Your task to perform on an android device: move an email to a new category in the gmail app Image 0: 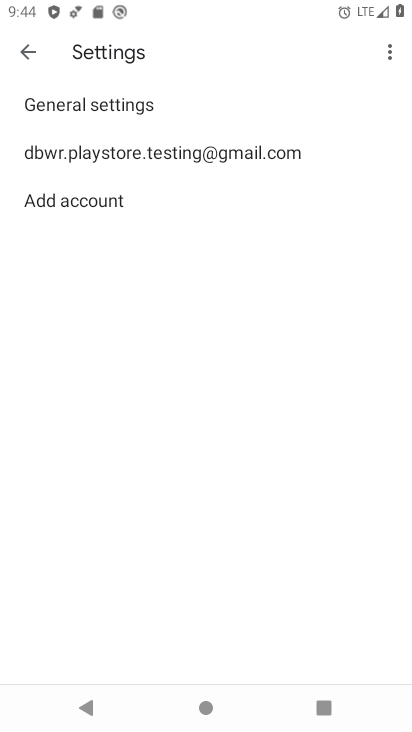
Step 0: click (22, 50)
Your task to perform on an android device: move an email to a new category in the gmail app Image 1: 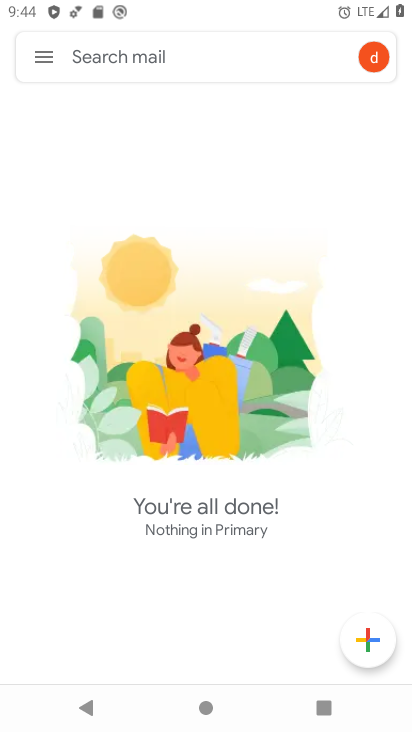
Step 1: click (28, 52)
Your task to perform on an android device: move an email to a new category in the gmail app Image 2: 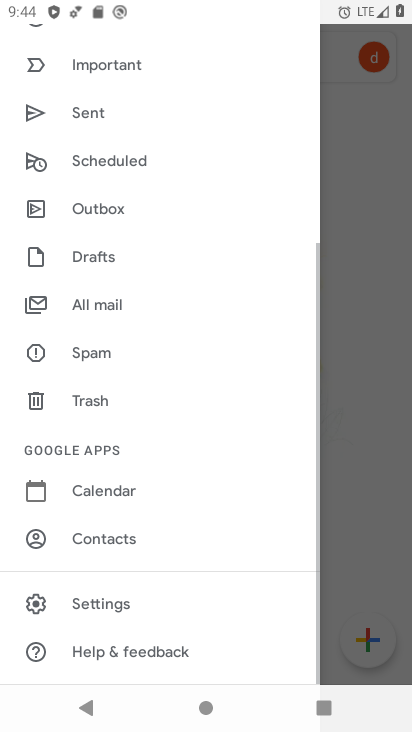
Step 2: drag from (258, 74) to (281, 575)
Your task to perform on an android device: move an email to a new category in the gmail app Image 3: 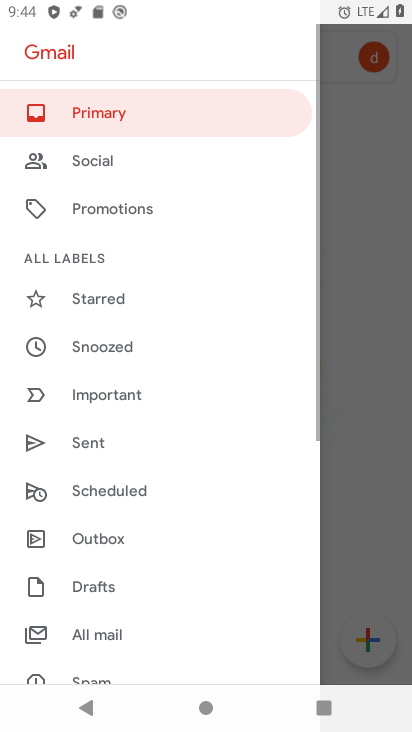
Step 3: click (142, 122)
Your task to perform on an android device: move an email to a new category in the gmail app Image 4: 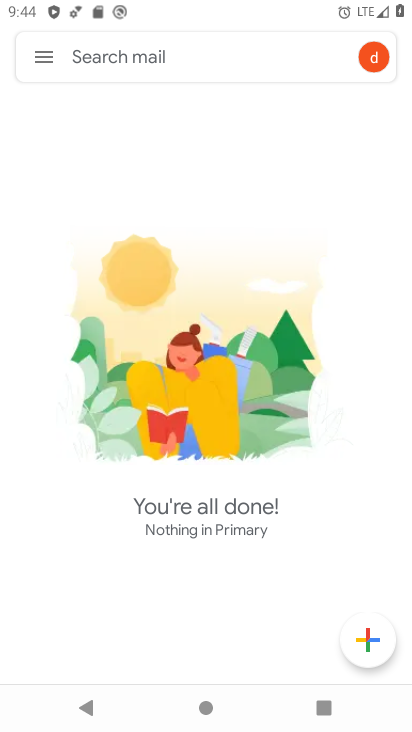
Step 4: click (42, 45)
Your task to perform on an android device: move an email to a new category in the gmail app Image 5: 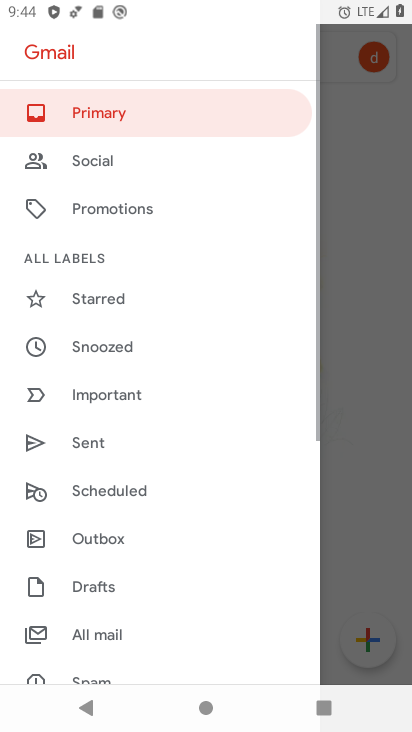
Step 5: click (85, 108)
Your task to perform on an android device: move an email to a new category in the gmail app Image 6: 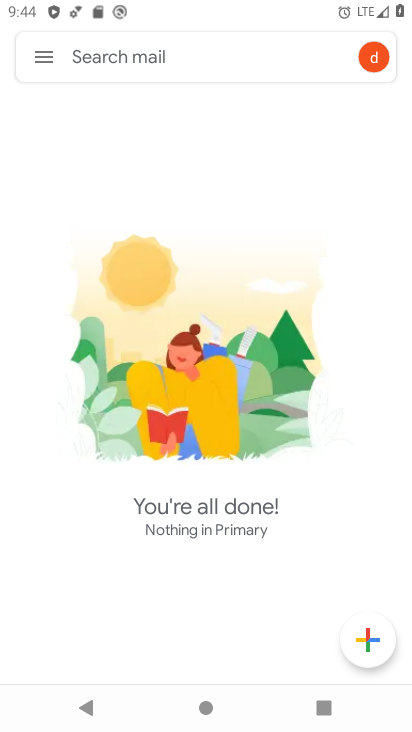
Step 6: task complete